Your task to perform on an android device: Go to accessibility settings Image 0: 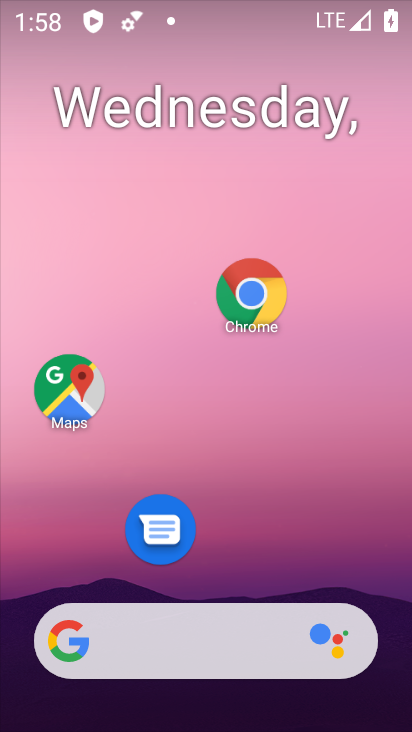
Step 0: click (392, 59)
Your task to perform on an android device: Go to accessibility settings Image 1: 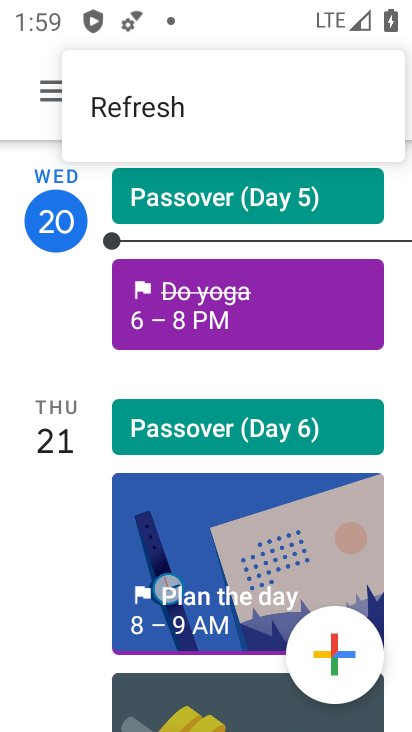
Step 1: press home button
Your task to perform on an android device: Go to accessibility settings Image 2: 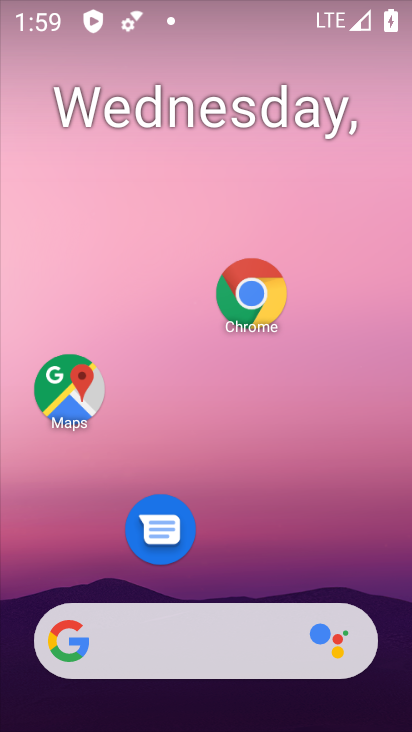
Step 2: drag from (193, 639) to (153, 423)
Your task to perform on an android device: Go to accessibility settings Image 3: 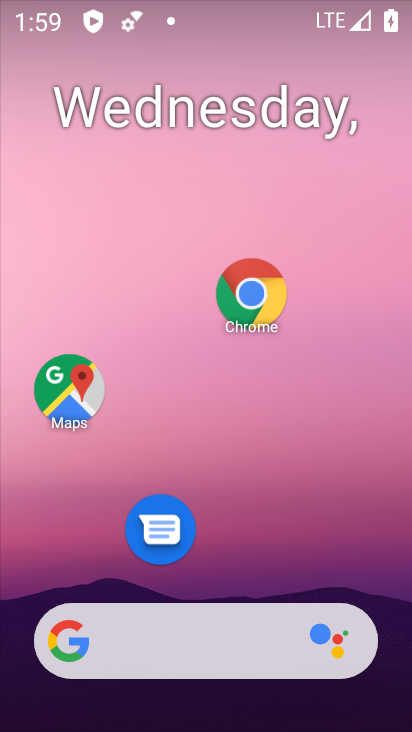
Step 3: drag from (235, 520) to (233, 174)
Your task to perform on an android device: Go to accessibility settings Image 4: 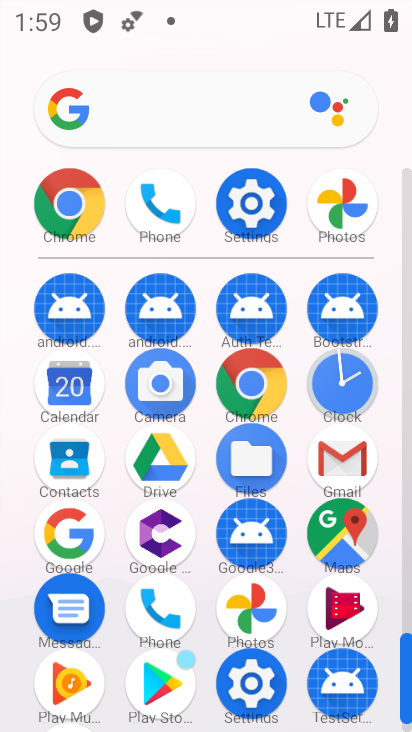
Step 4: click (268, 184)
Your task to perform on an android device: Go to accessibility settings Image 5: 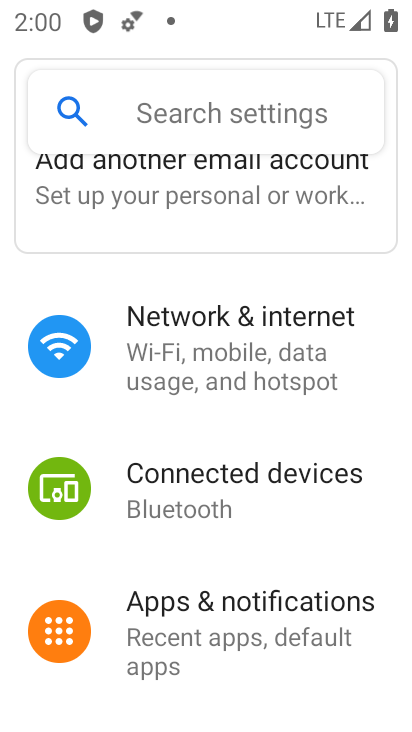
Step 5: drag from (299, 590) to (240, 313)
Your task to perform on an android device: Go to accessibility settings Image 6: 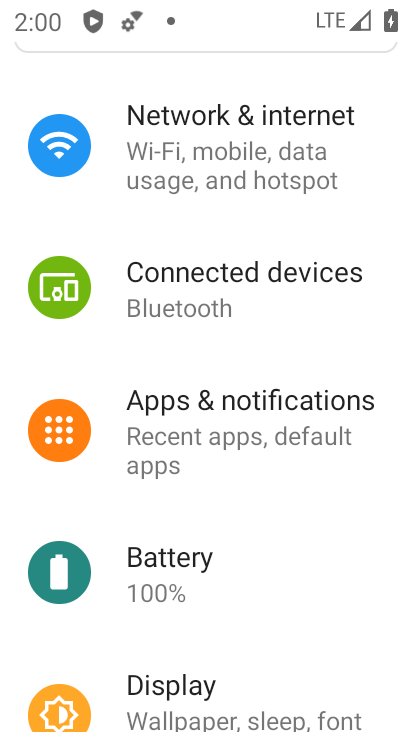
Step 6: drag from (253, 544) to (260, 409)
Your task to perform on an android device: Go to accessibility settings Image 7: 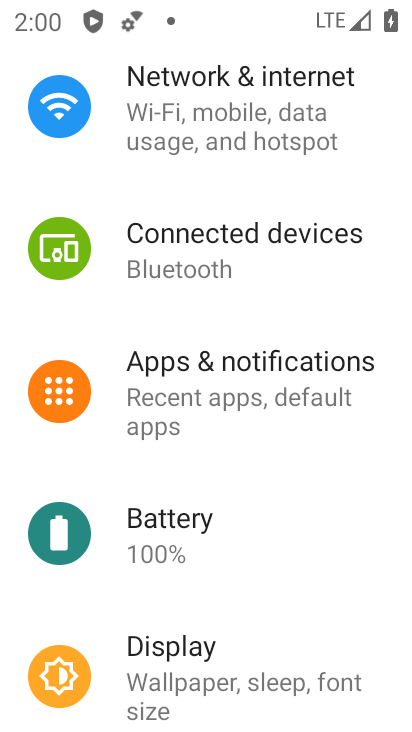
Step 7: drag from (177, 673) to (226, 390)
Your task to perform on an android device: Go to accessibility settings Image 8: 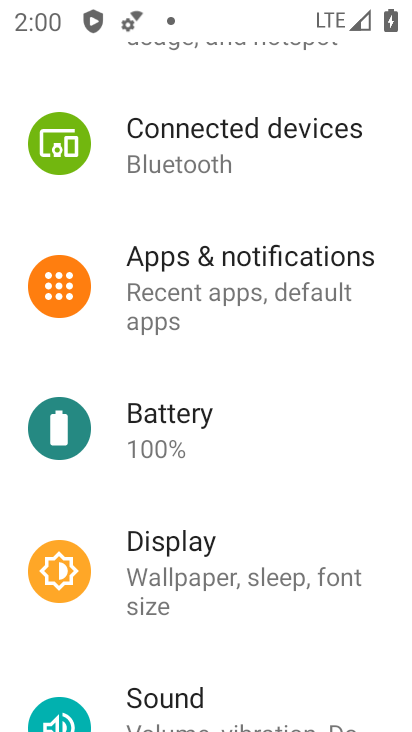
Step 8: drag from (234, 535) to (225, 302)
Your task to perform on an android device: Go to accessibility settings Image 9: 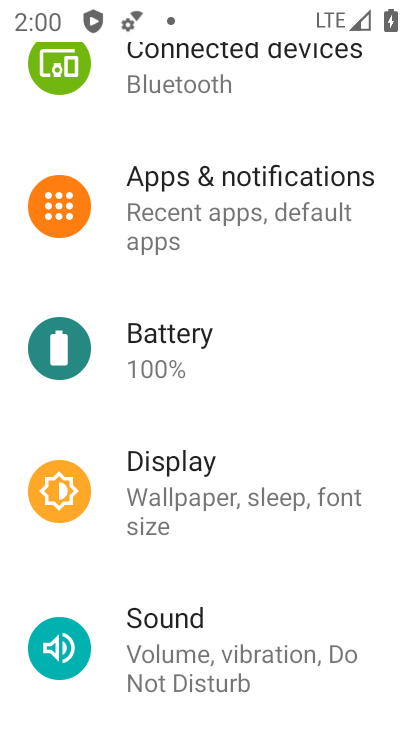
Step 9: drag from (234, 581) to (255, 301)
Your task to perform on an android device: Go to accessibility settings Image 10: 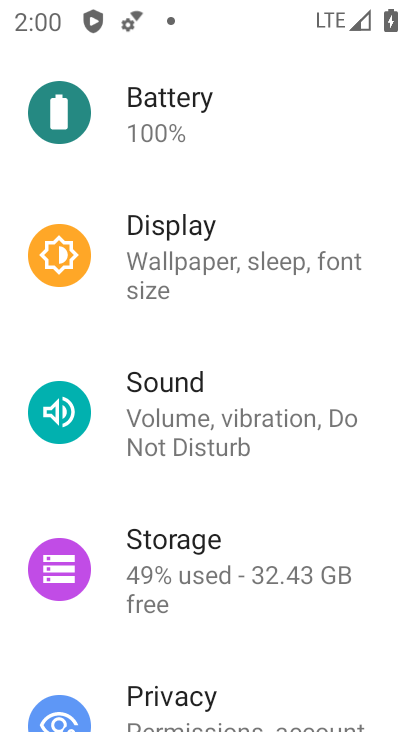
Step 10: drag from (224, 590) to (222, 276)
Your task to perform on an android device: Go to accessibility settings Image 11: 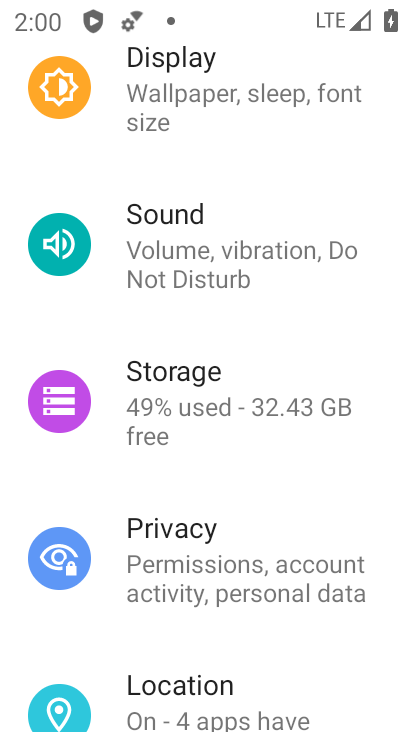
Step 11: drag from (213, 663) to (228, 232)
Your task to perform on an android device: Go to accessibility settings Image 12: 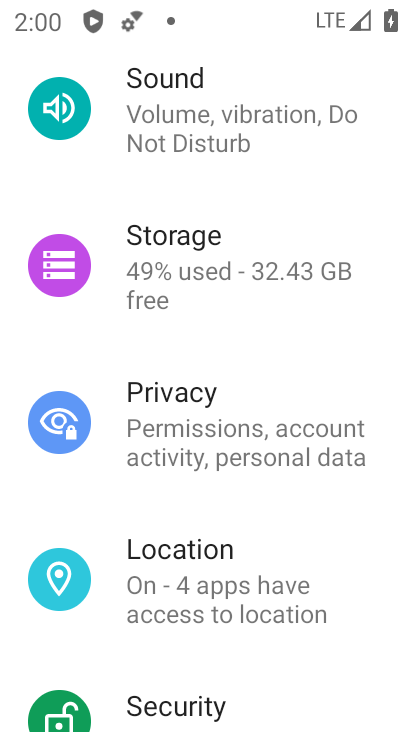
Step 12: drag from (190, 670) to (197, 536)
Your task to perform on an android device: Go to accessibility settings Image 13: 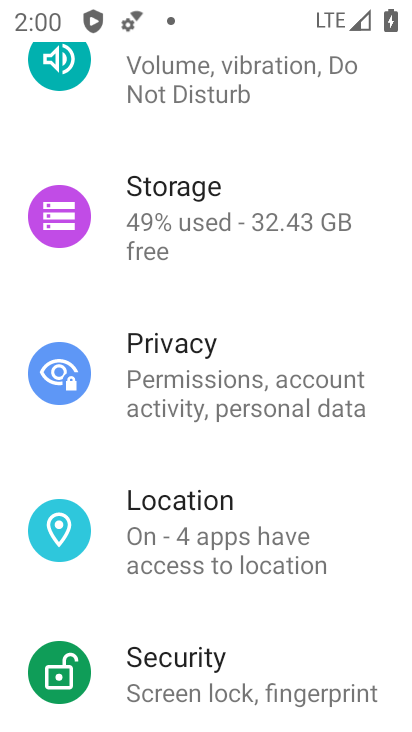
Step 13: drag from (208, 635) to (230, 87)
Your task to perform on an android device: Go to accessibility settings Image 14: 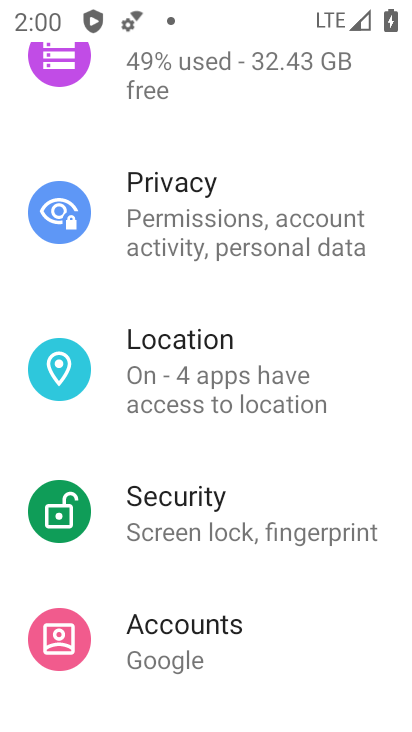
Step 14: drag from (218, 539) to (296, 0)
Your task to perform on an android device: Go to accessibility settings Image 15: 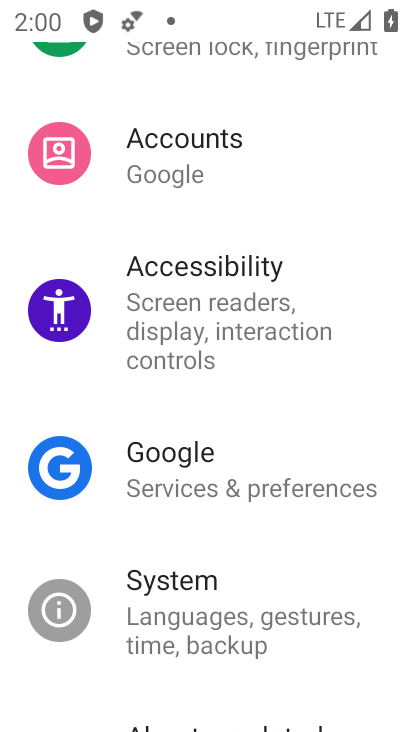
Step 15: click (265, 338)
Your task to perform on an android device: Go to accessibility settings Image 16: 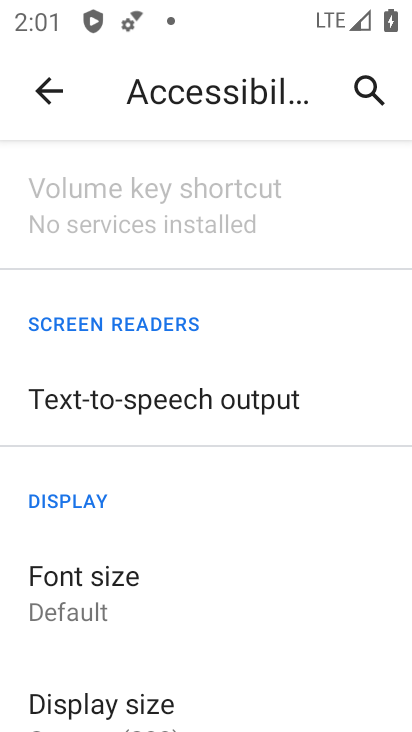
Step 16: task complete